Your task to perform on an android device: turn on the 12-hour format for clock Image 0: 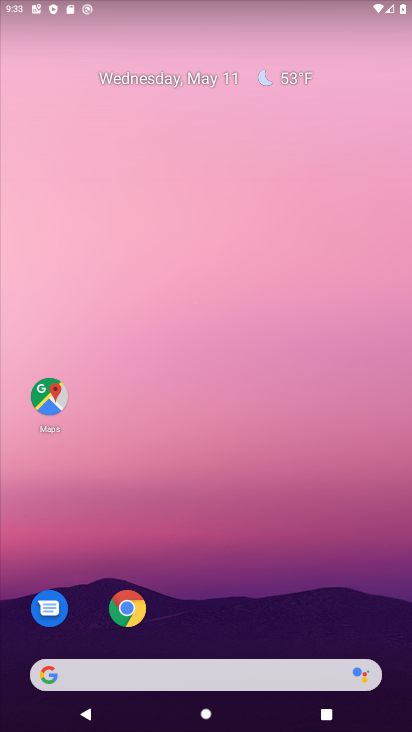
Step 0: drag from (263, 627) to (342, 56)
Your task to perform on an android device: turn on the 12-hour format for clock Image 1: 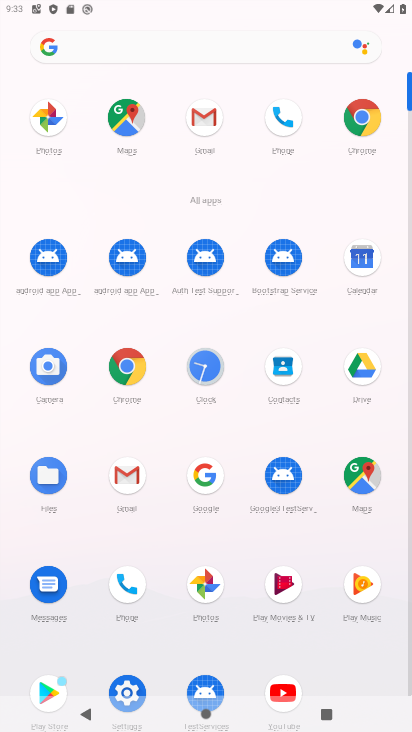
Step 1: click (193, 371)
Your task to perform on an android device: turn on the 12-hour format for clock Image 2: 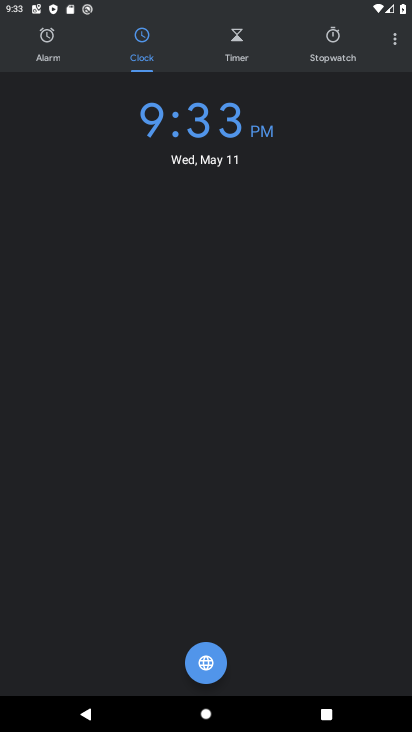
Step 2: click (397, 41)
Your task to perform on an android device: turn on the 12-hour format for clock Image 3: 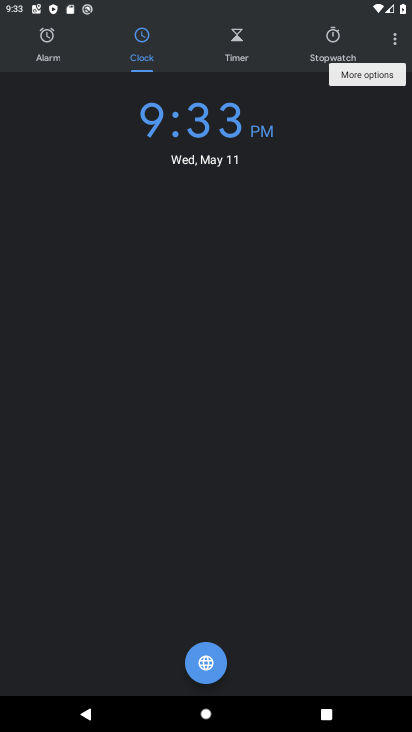
Step 3: click (397, 44)
Your task to perform on an android device: turn on the 12-hour format for clock Image 4: 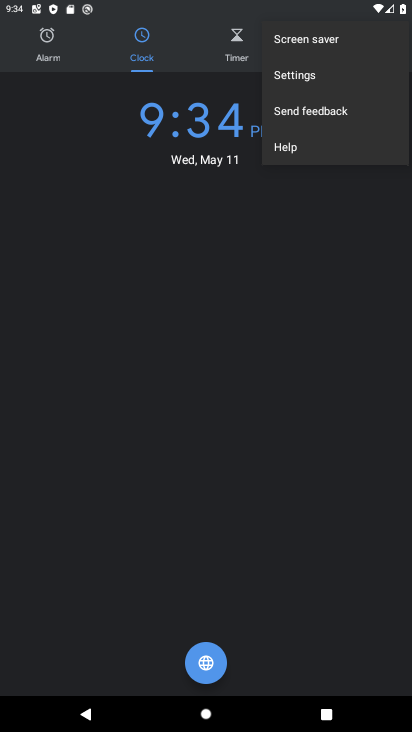
Step 4: click (327, 79)
Your task to perform on an android device: turn on the 12-hour format for clock Image 5: 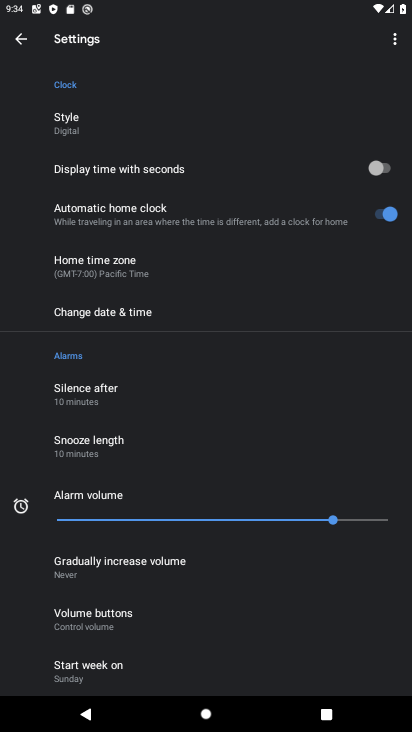
Step 5: click (111, 317)
Your task to perform on an android device: turn on the 12-hour format for clock Image 6: 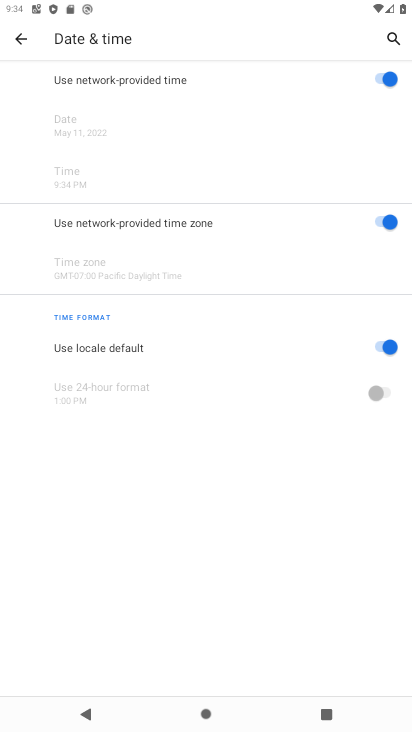
Step 6: click (373, 390)
Your task to perform on an android device: turn on the 12-hour format for clock Image 7: 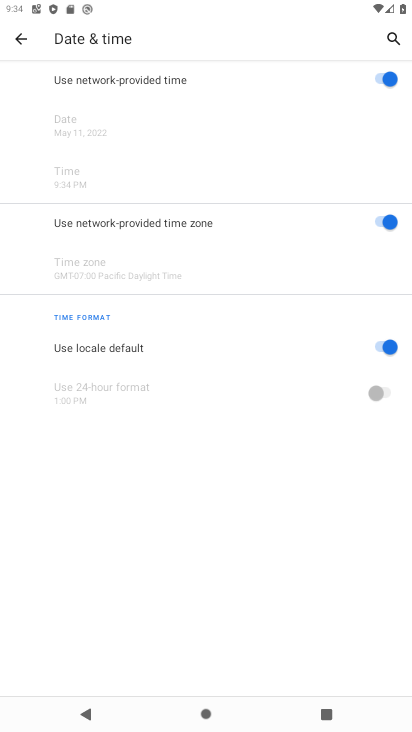
Step 7: click (390, 349)
Your task to perform on an android device: turn on the 12-hour format for clock Image 8: 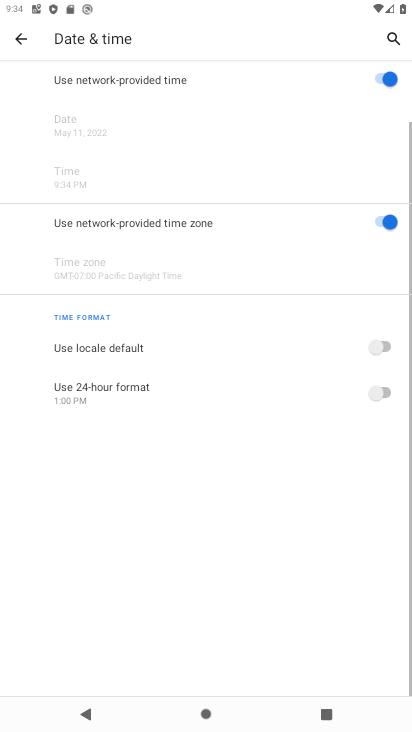
Step 8: click (375, 394)
Your task to perform on an android device: turn on the 12-hour format for clock Image 9: 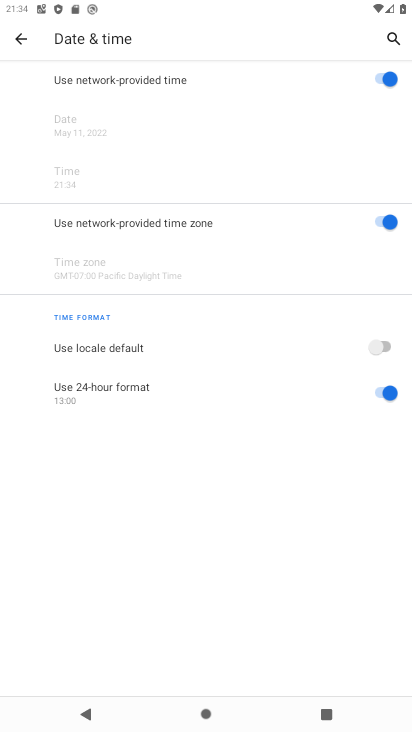
Step 9: task complete